Your task to perform on an android device: See recent photos Image 0: 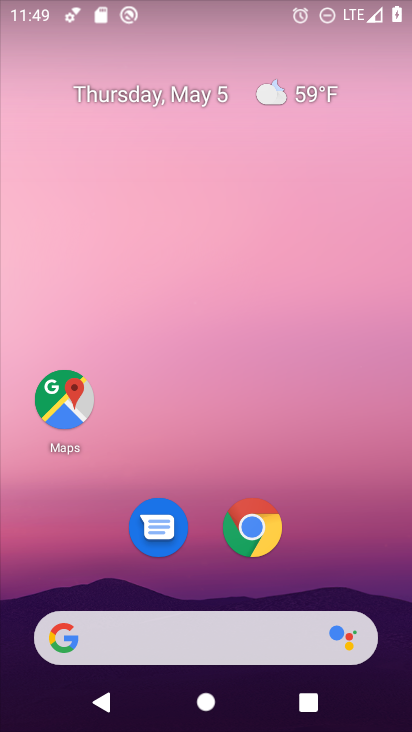
Step 0: drag from (269, 707) to (323, 29)
Your task to perform on an android device: See recent photos Image 1: 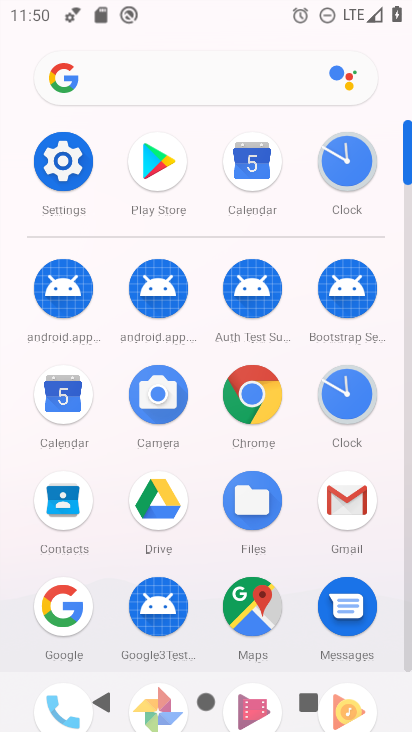
Step 1: drag from (289, 647) to (210, 140)
Your task to perform on an android device: See recent photos Image 2: 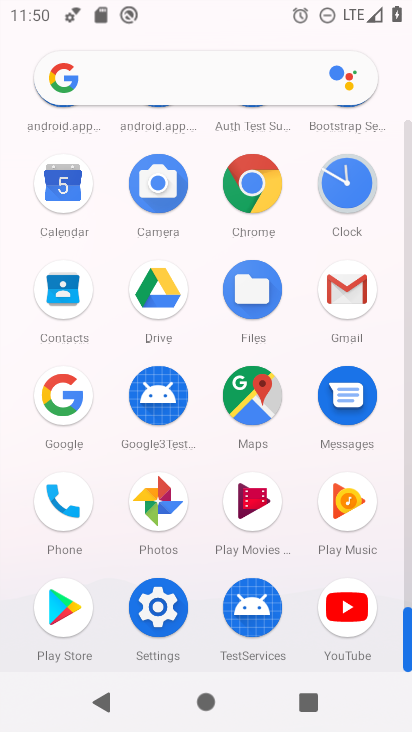
Step 2: click (153, 513)
Your task to perform on an android device: See recent photos Image 3: 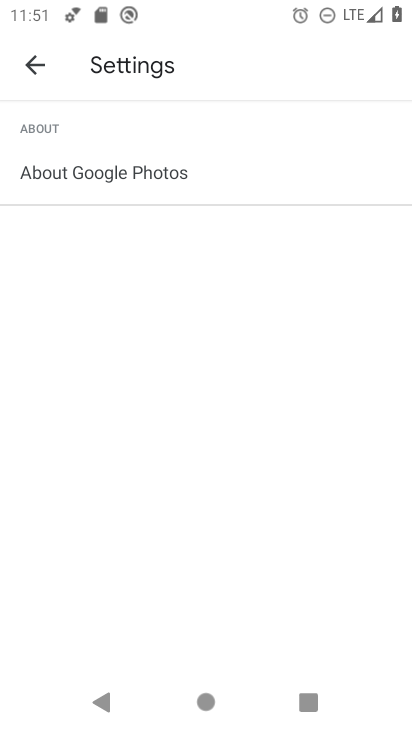
Step 3: click (39, 64)
Your task to perform on an android device: See recent photos Image 4: 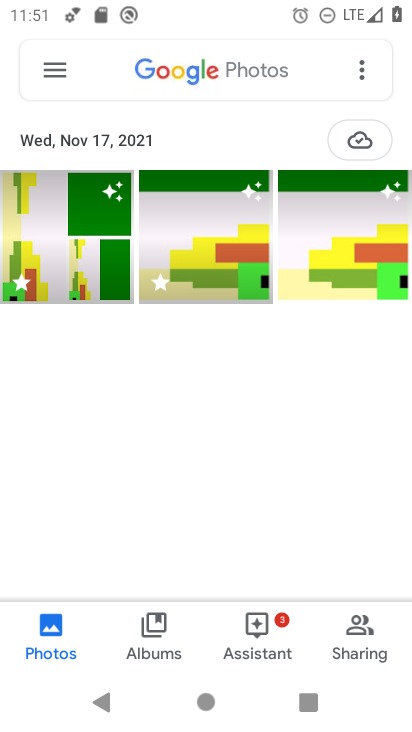
Step 4: click (208, 204)
Your task to perform on an android device: See recent photos Image 5: 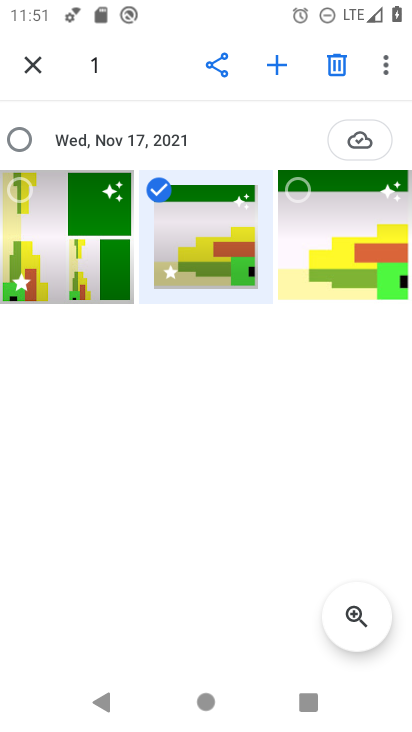
Step 5: click (31, 65)
Your task to perform on an android device: See recent photos Image 6: 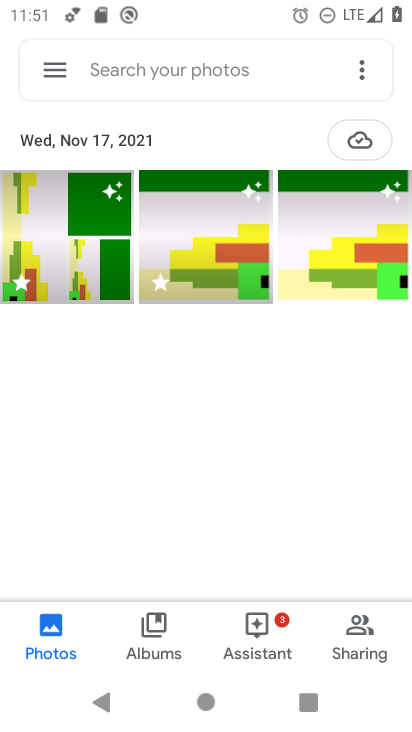
Step 6: task complete